Your task to perform on an android device: toggle notifications settings in the gmail app Image 0: 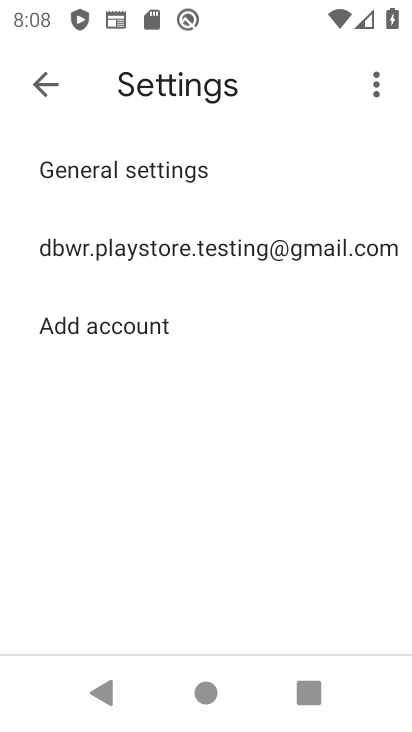
Step 0: click (88, 178)
Your task to perform on an android device: toggle notifications settings in the gmail app Image 1: 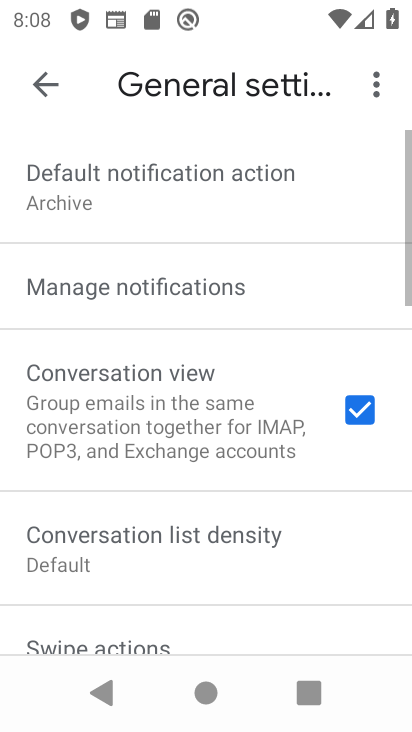
Step 1: click (119, 281)
Your task to perform on an android device: toggle notifications settings in the gmail app Image 2: 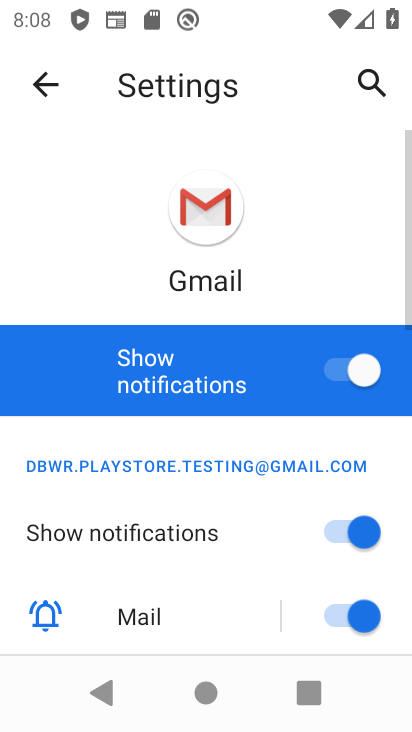
Step 2: click (376, 378)
Your task to perform on an android device: toggle notifications settings in the gmail app Image 3: 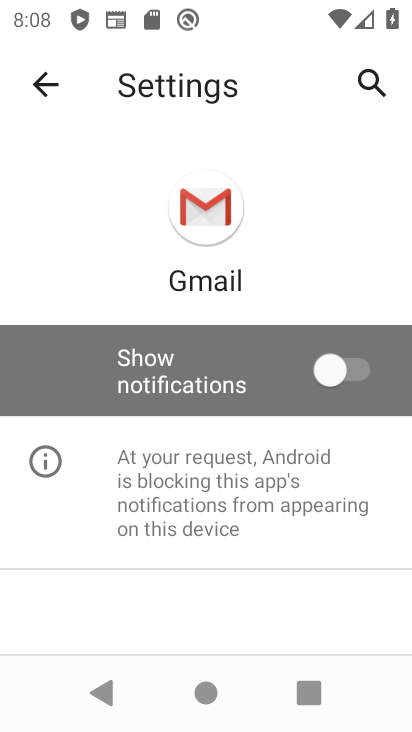
Step 3: task complete